Your task to perform on an android device: toggle translation in the chrome app Image 0: 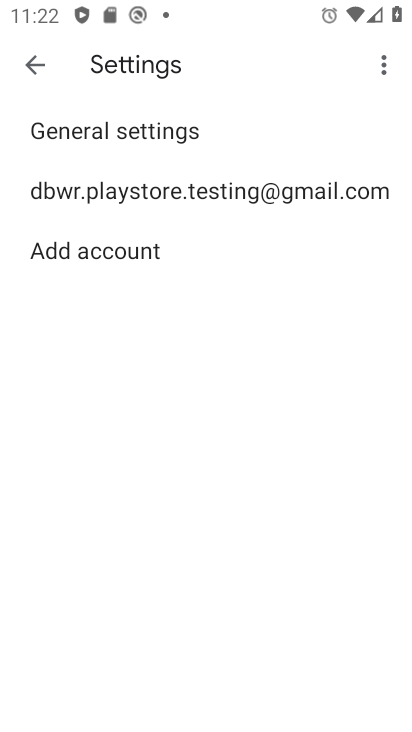
Step 0: press home button
Your task to perform on an android device: toggle translation in the chrome app Image 1: 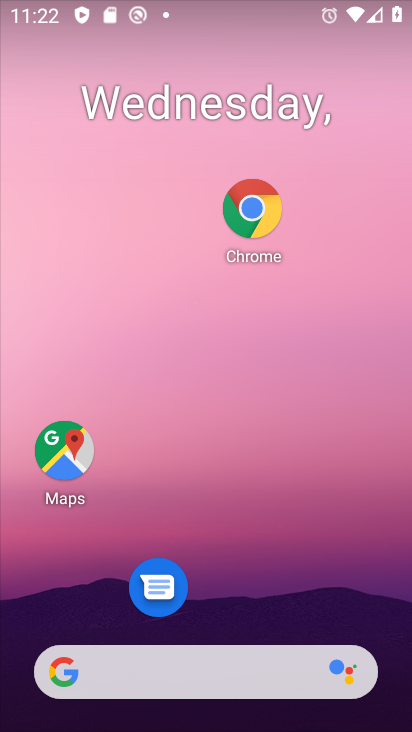
Step 1: click (250, 226)
Your task to perform on an android device: toggle translation in the chrome app Image 2: 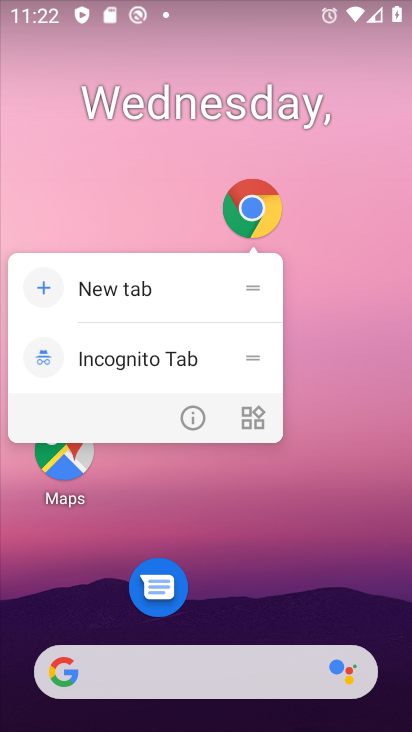
Step 2: click (248, 211)
Your task to perform on an android device: toggle translation in the chrome app Image 3: 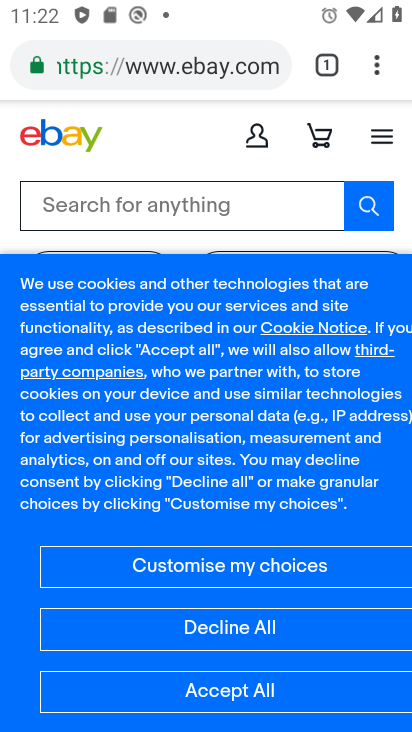
Step 3: click (373, 63)
Your task to perform on an android device: toggle translation in the chrome app Image 4: 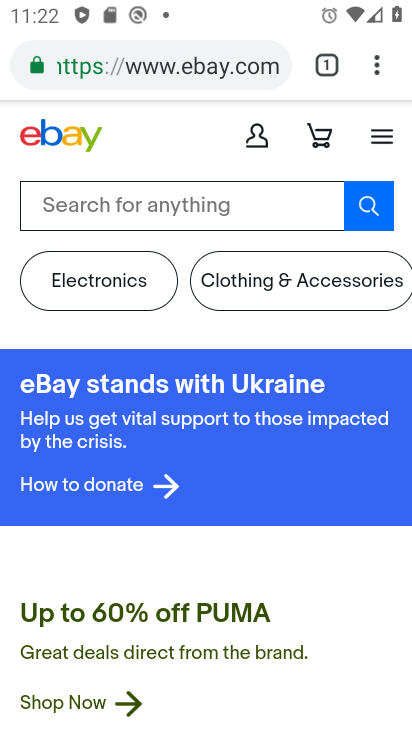
Step 4: click (378, 70)
Your task to perform on an android device: toggle translation in the chrome app Image 5: 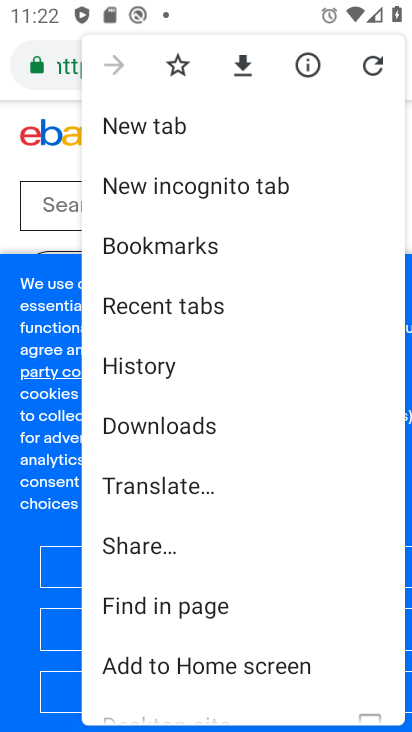
Step 5: drag from (183, 614) to (205, 250)
Your task to perform on an android device: toggle translation in the chrome app Image 6: 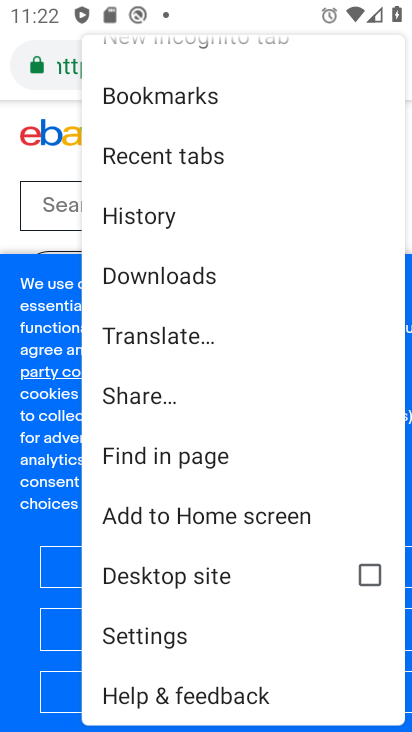
Step 6: click (158, 635)
Your task to perform on an android device: toggle translation in the chrome app Image 7: 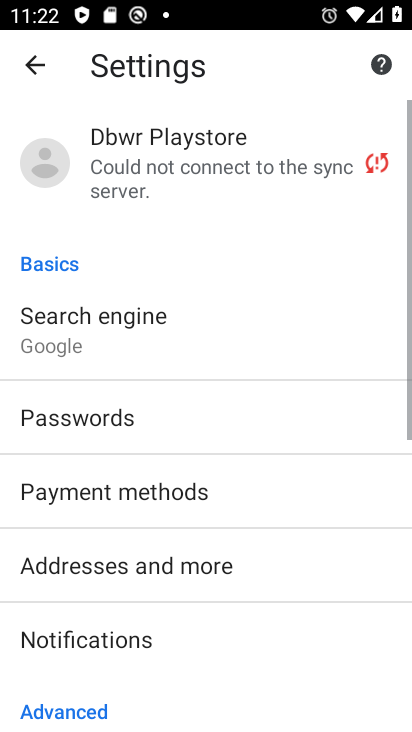
Step 7: drag from (187, 663) to (279, 275)
Your task to perform on an android device: toggle translation in the chrome app Image 8: 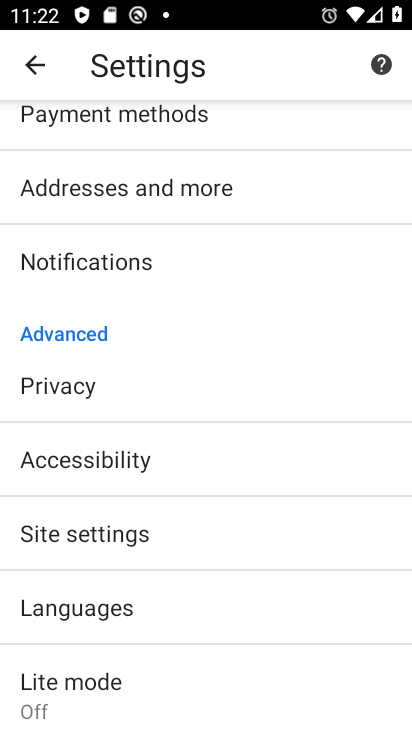
Step 8: click (92, 603)
Your task to perform on an android device: toggle translation in the chrome app Image 9: 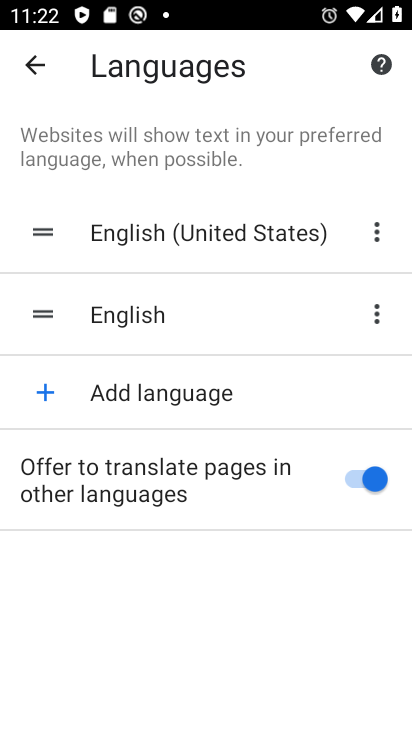
Step 9: click (344, 485)
Your task to perform on an android device: toggle translation in the chrome app Image 10: 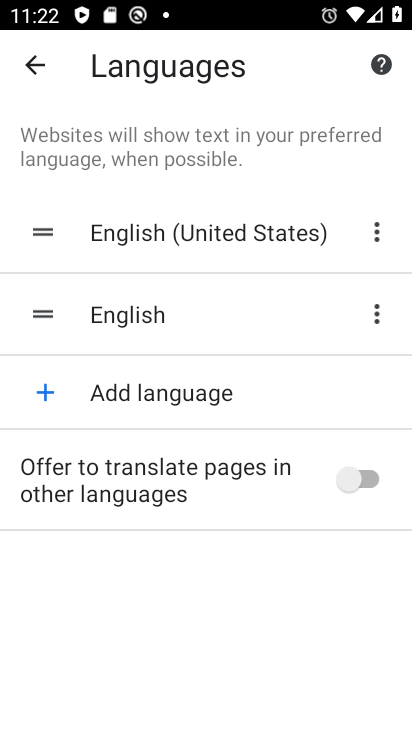
Step 10: task complete